Your task to perform on an android device: Go to Wikipedia Image 0: 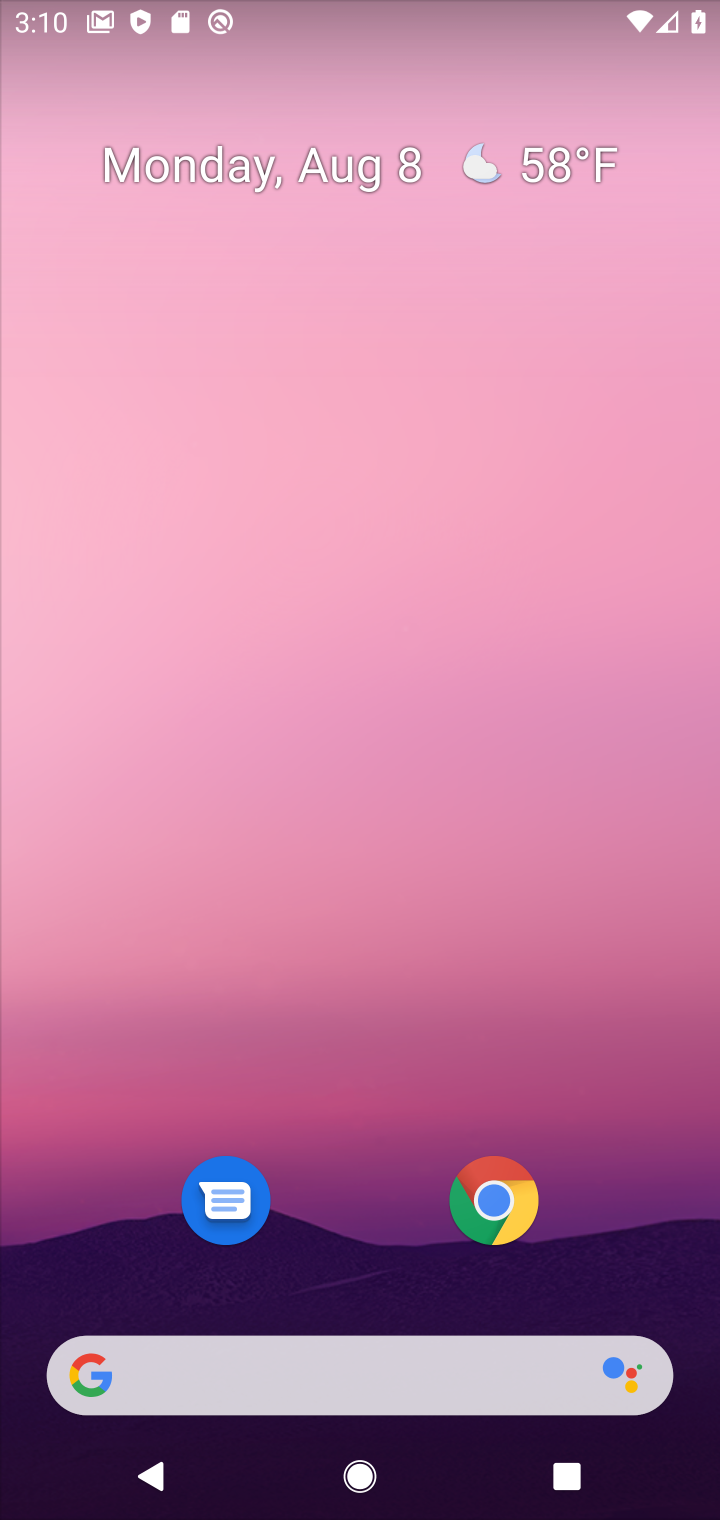
Step 0: click (504, 1203)
Your task to perform on an android device: Go to Wikipedia Image 1: 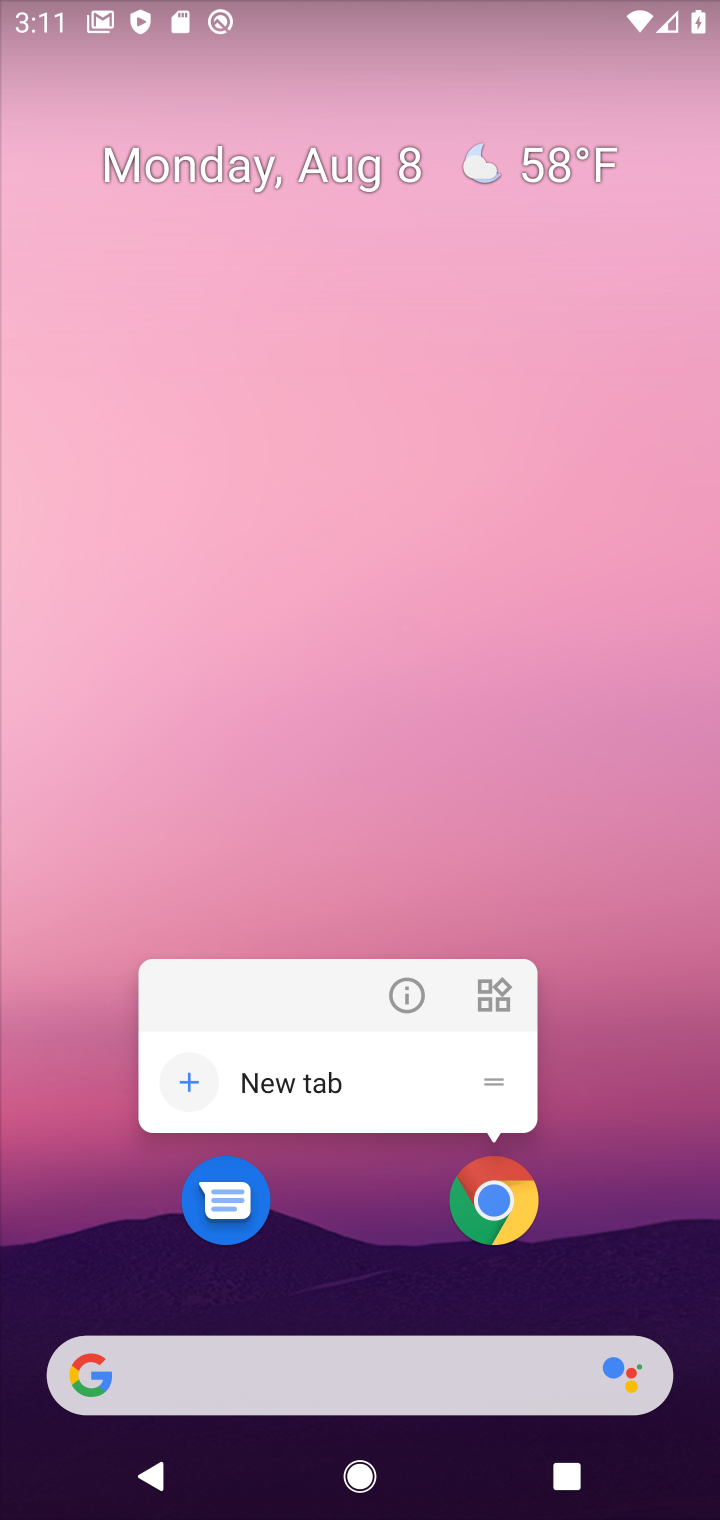
Step 1: click (490, 1183)
Your task to perform on an android device: Go to Wikipedia Image 2: 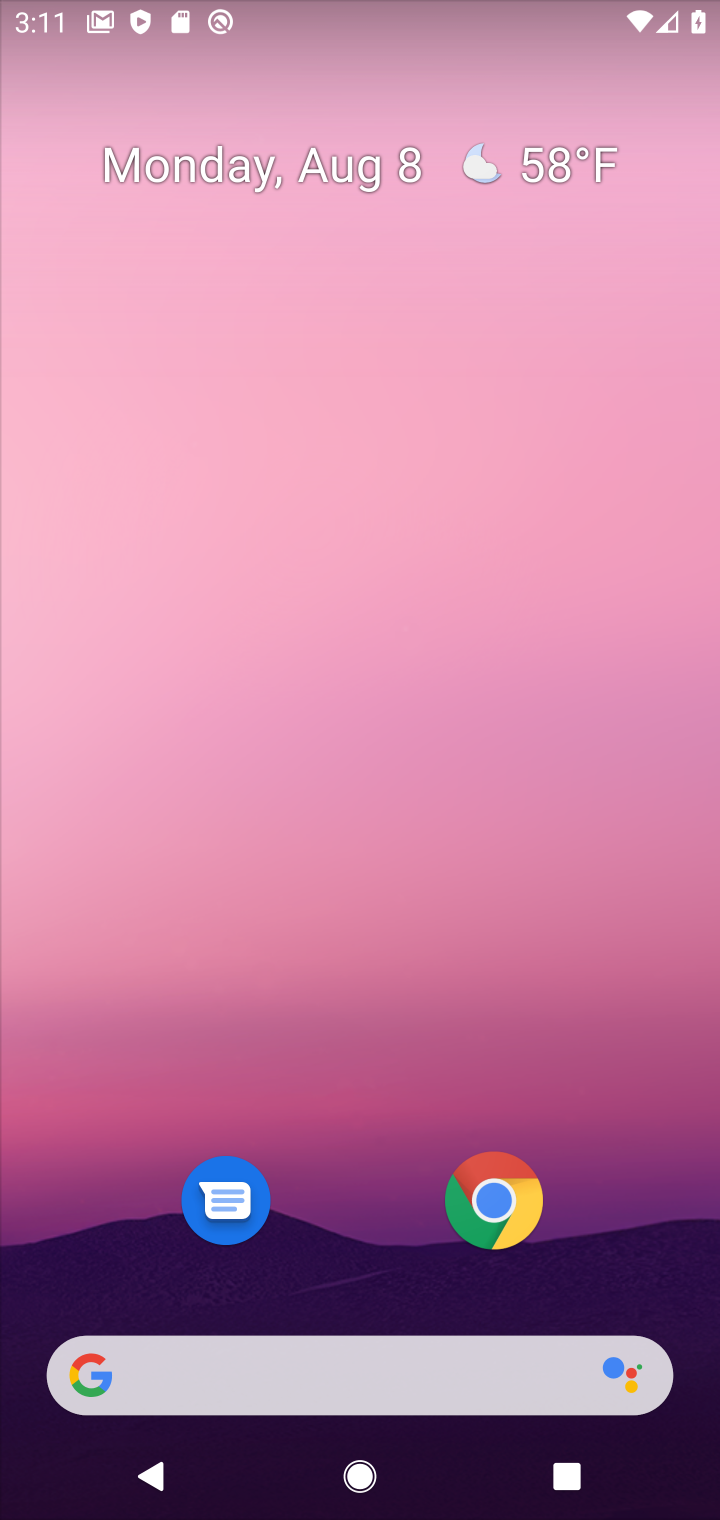
Step 2: click (490, 1183)
Your task to perform on an android device: Go to Wikipedia Image 3: 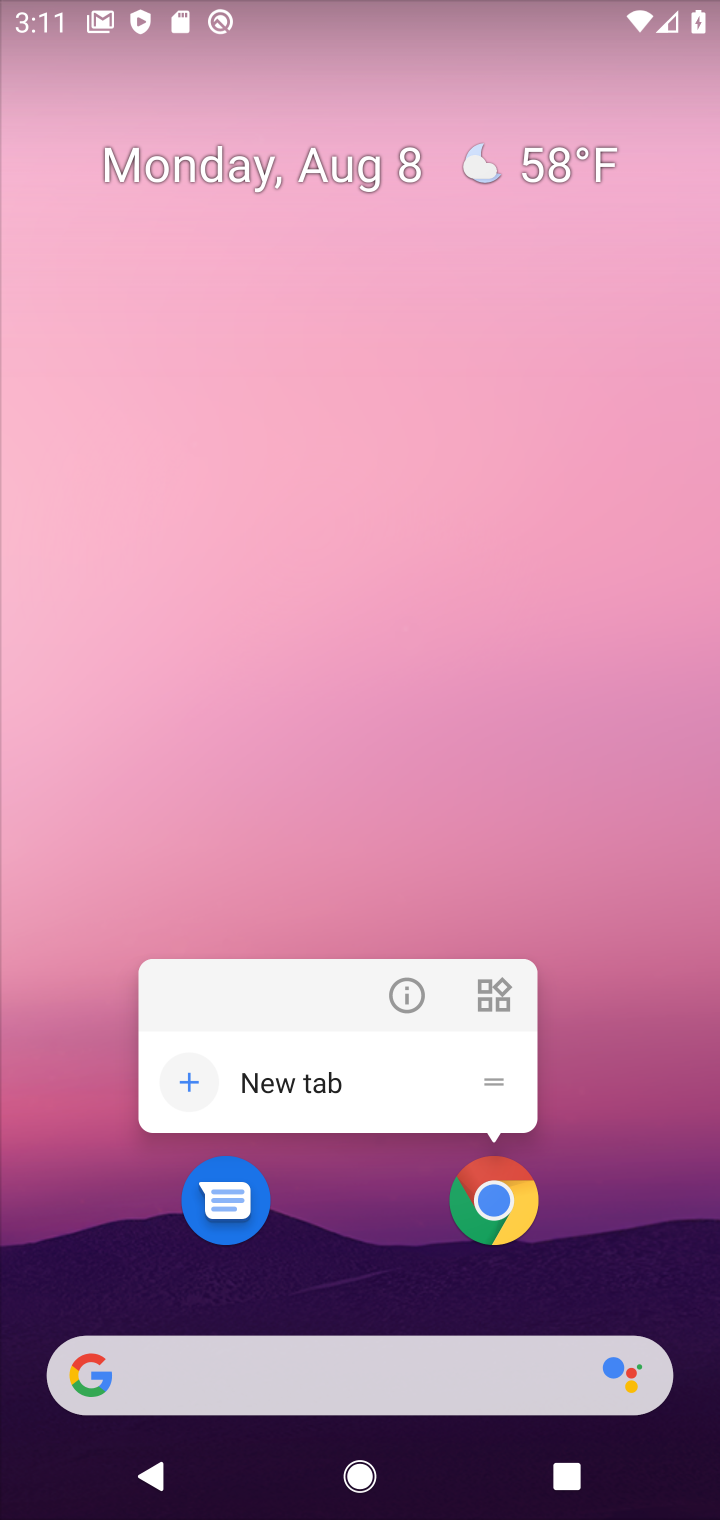
Step 3: click (652, 1167)
Your task to perform on an android device: Go to Wikipedia Image 4: 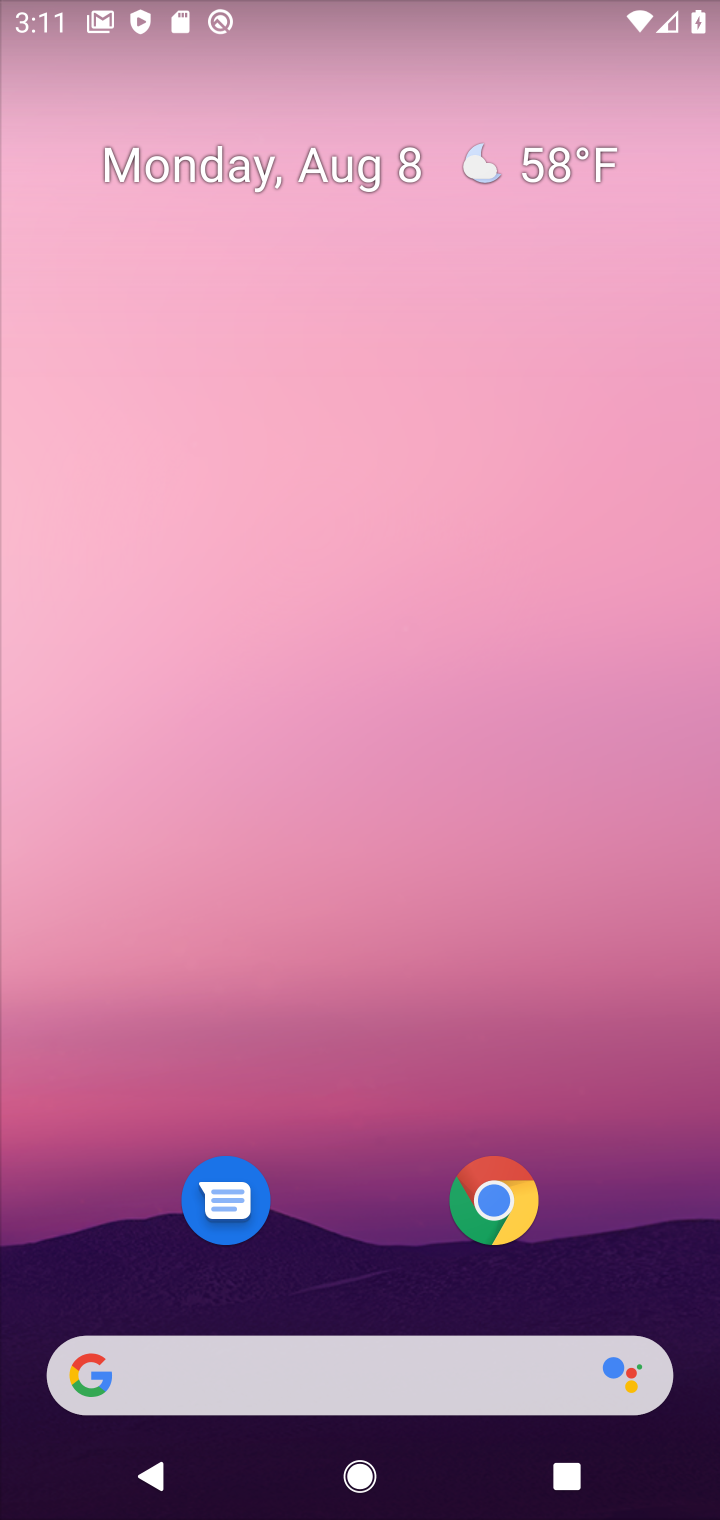
Step 4: click (500, 1212)
Your task to perform on an android device: Go to Wikipedia Image 5: 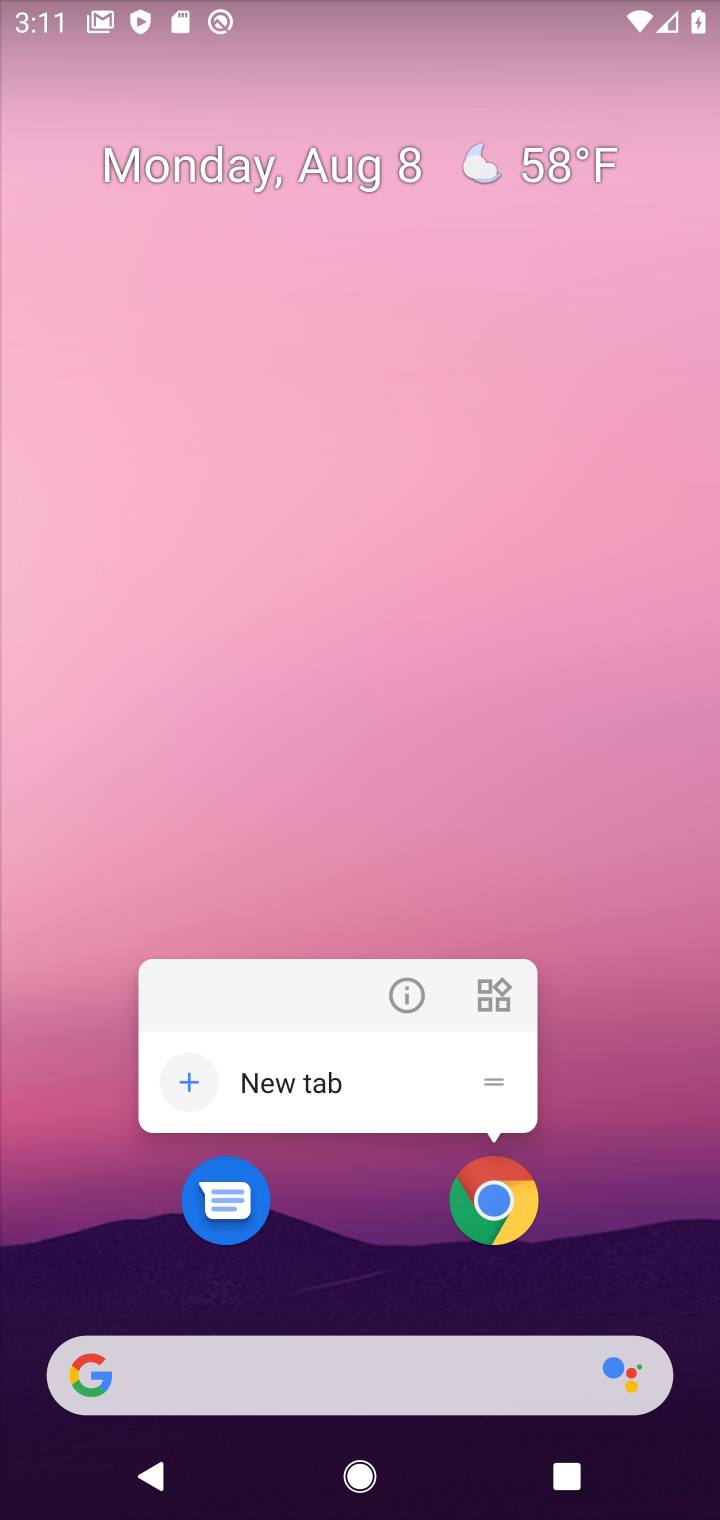
Step 5: click (500, 1212)
Your task to perform on an android device: Go to Wikipedia Image 6: 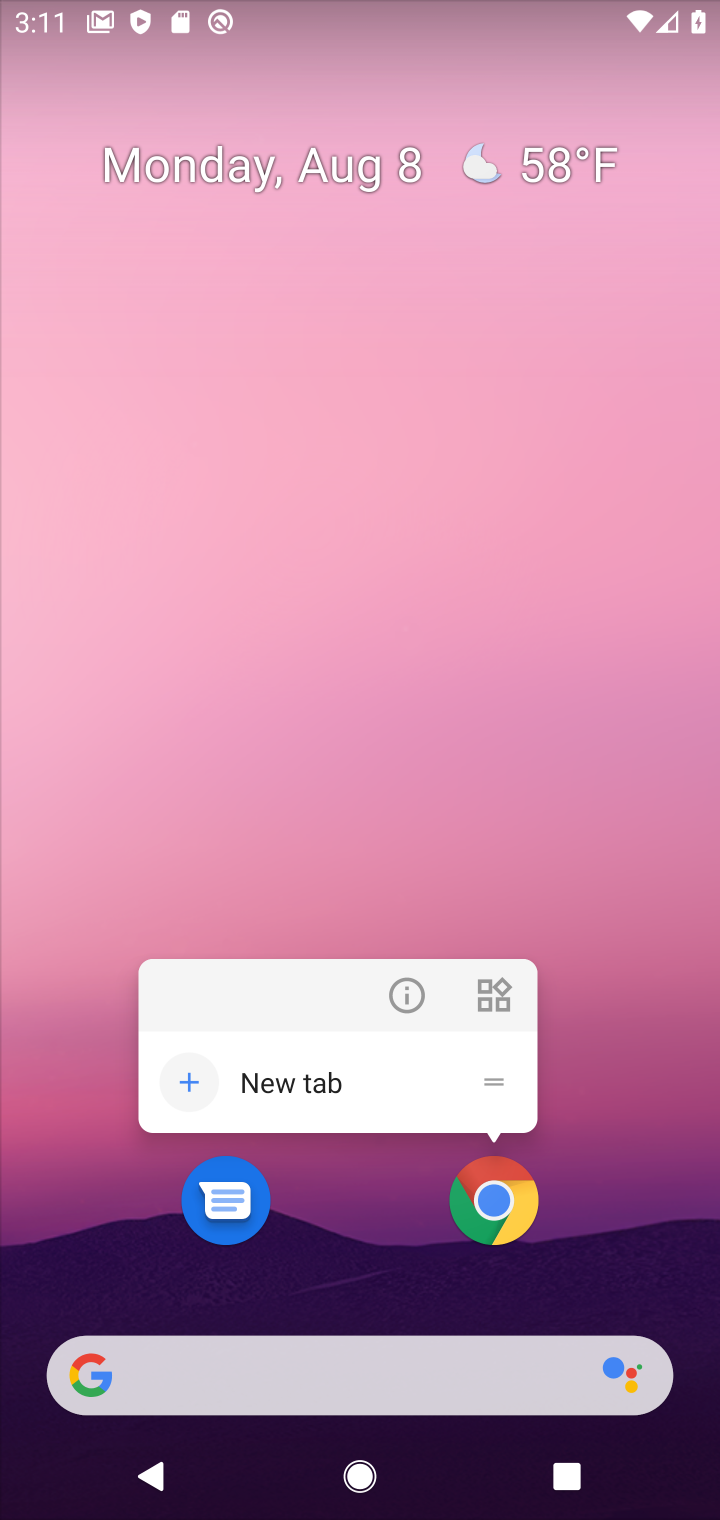
Step 6: click (241, 1195)
Your task to perform on an android device: Go to Wikipedia Image 7: 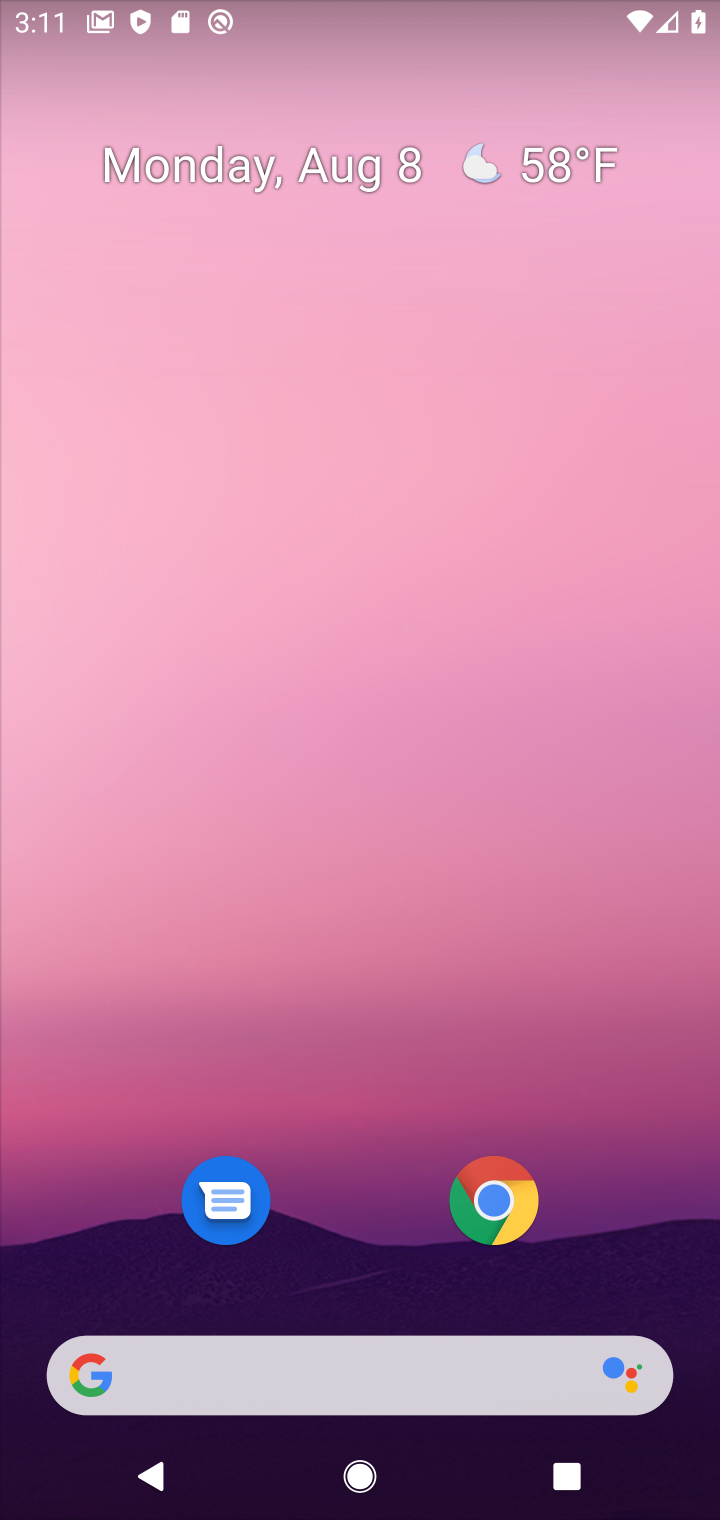
Step 7: click (212, 1194)
Your task to perform on an android device: Go to Wikipedia Image 8: 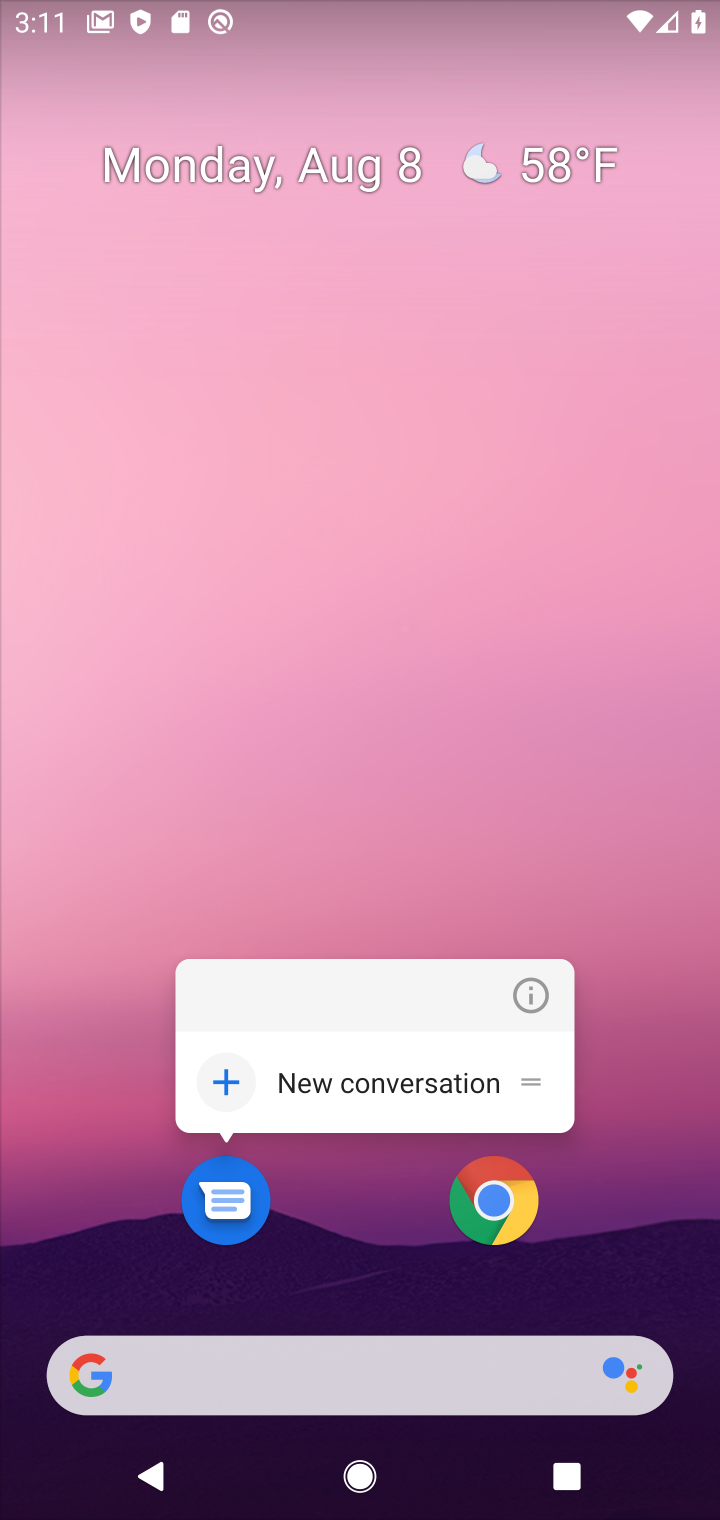
Step 8: drag from (416, 1277) to (369, 430)
Your task to perform on an android device: Go to Wikipedia Image 9: 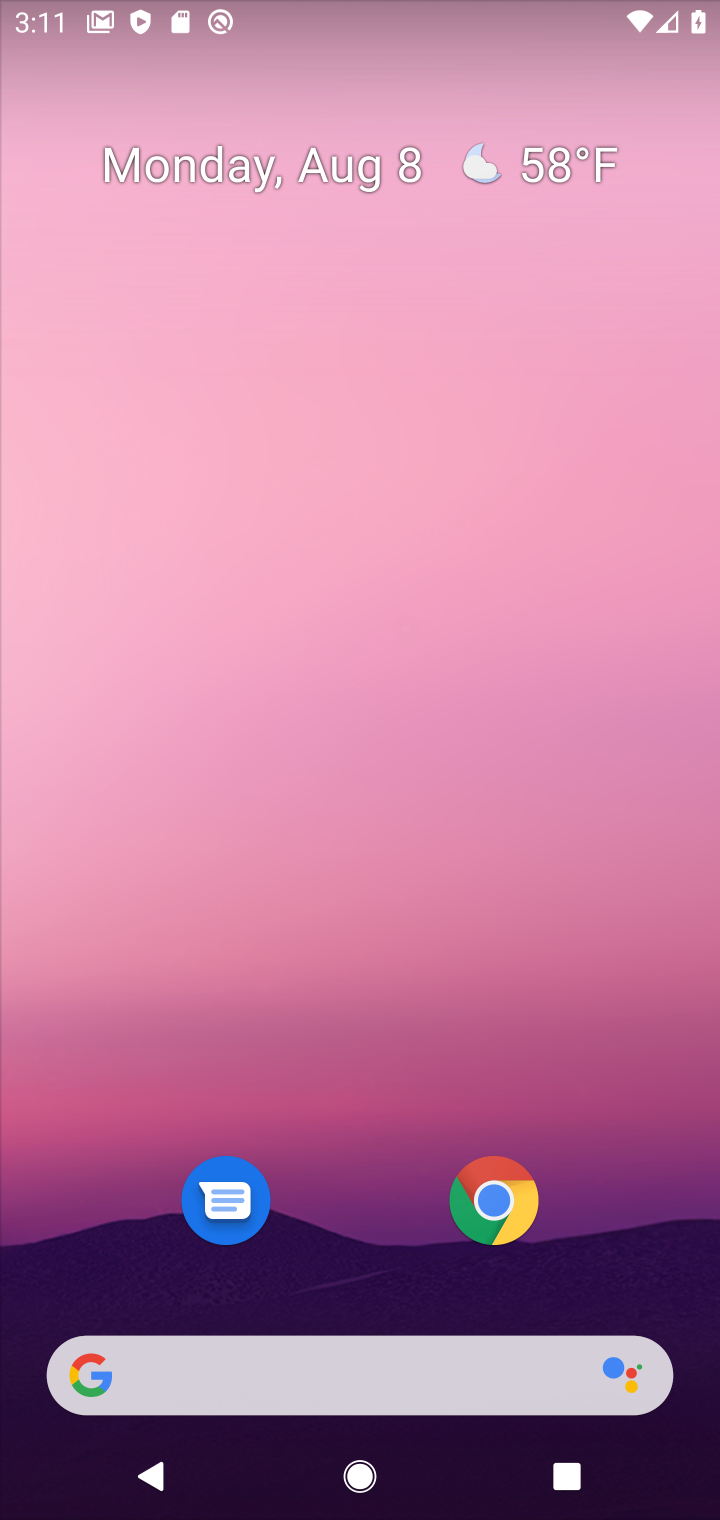
Step 9: drag from (373, 1292) to (437, 490)
Your task to perform on an android device: Go to Wikipedia Image 10: 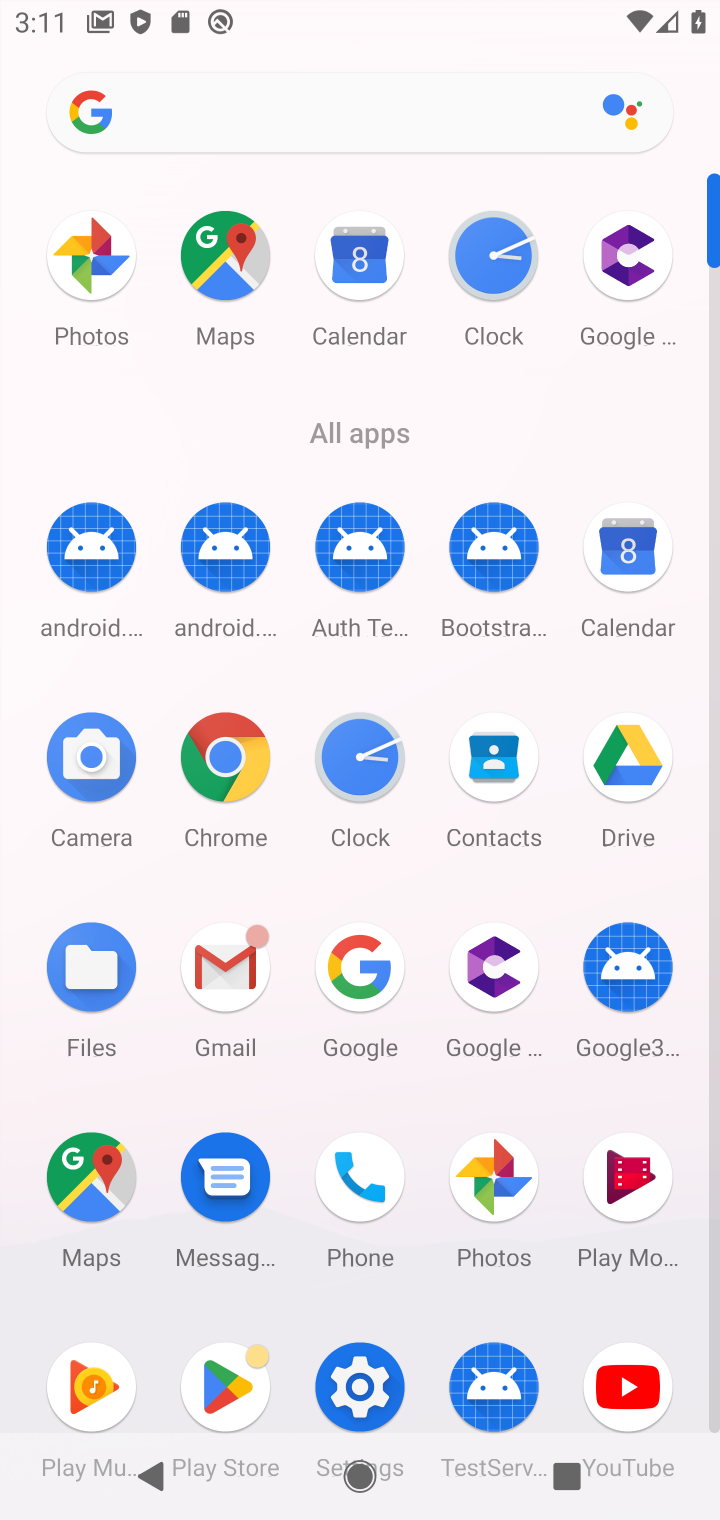
Step 10: click (252, 739)
Your task to perform on an android device: Go to Wikipedia Image 11: 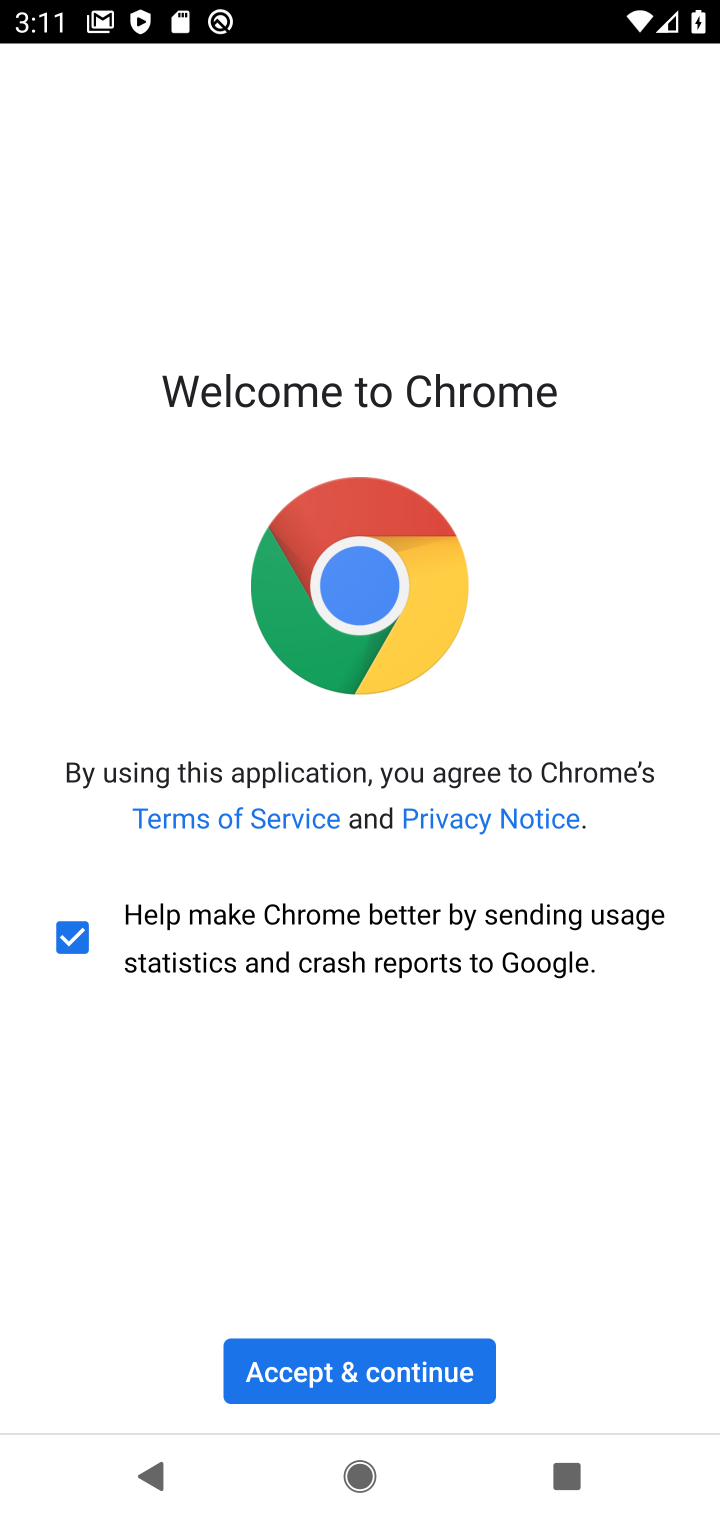
Step 11: click (378, 1359)
Your task to perform on an android device: Go to Wikipedia Image 12: 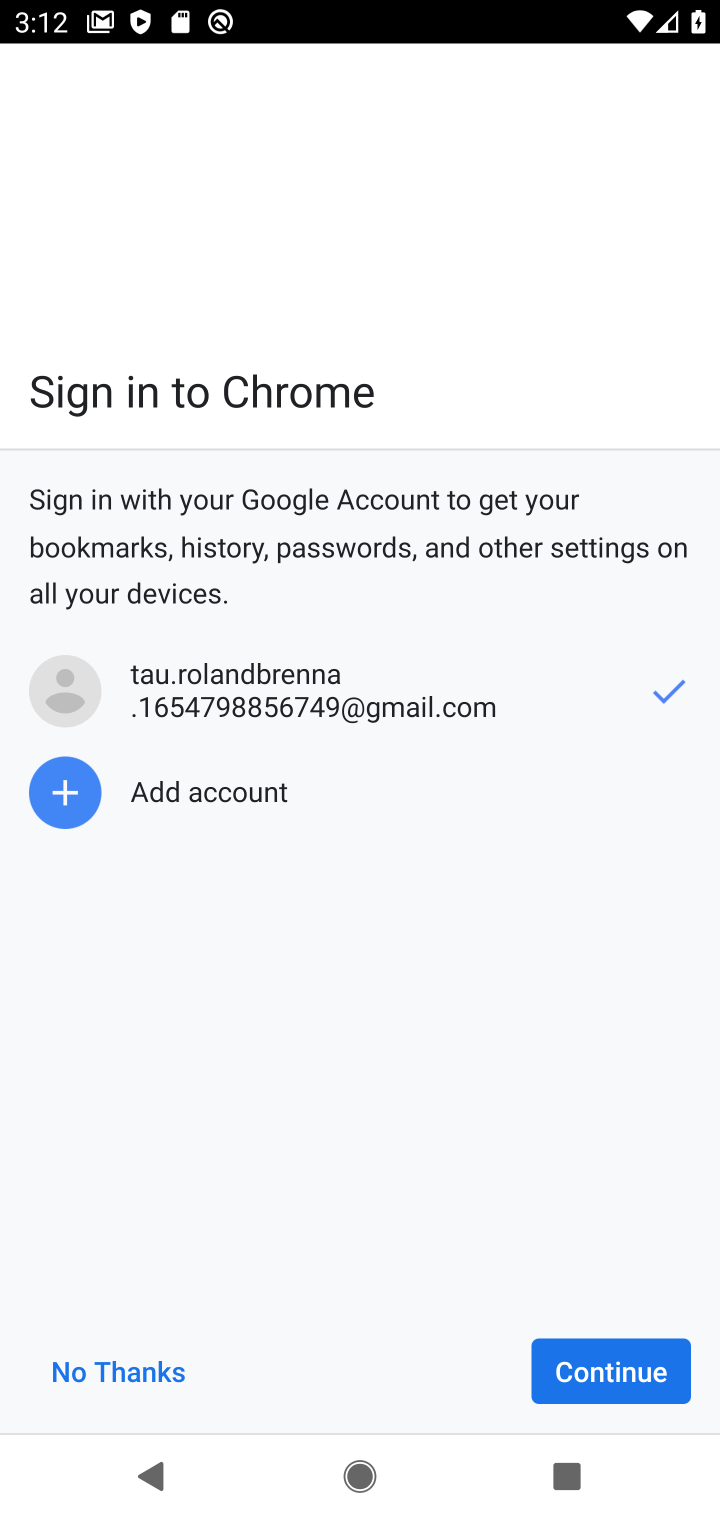
Step 12: click (611, 1391)
Your task to perform on an android device: Go to Wikipedia Image 13: 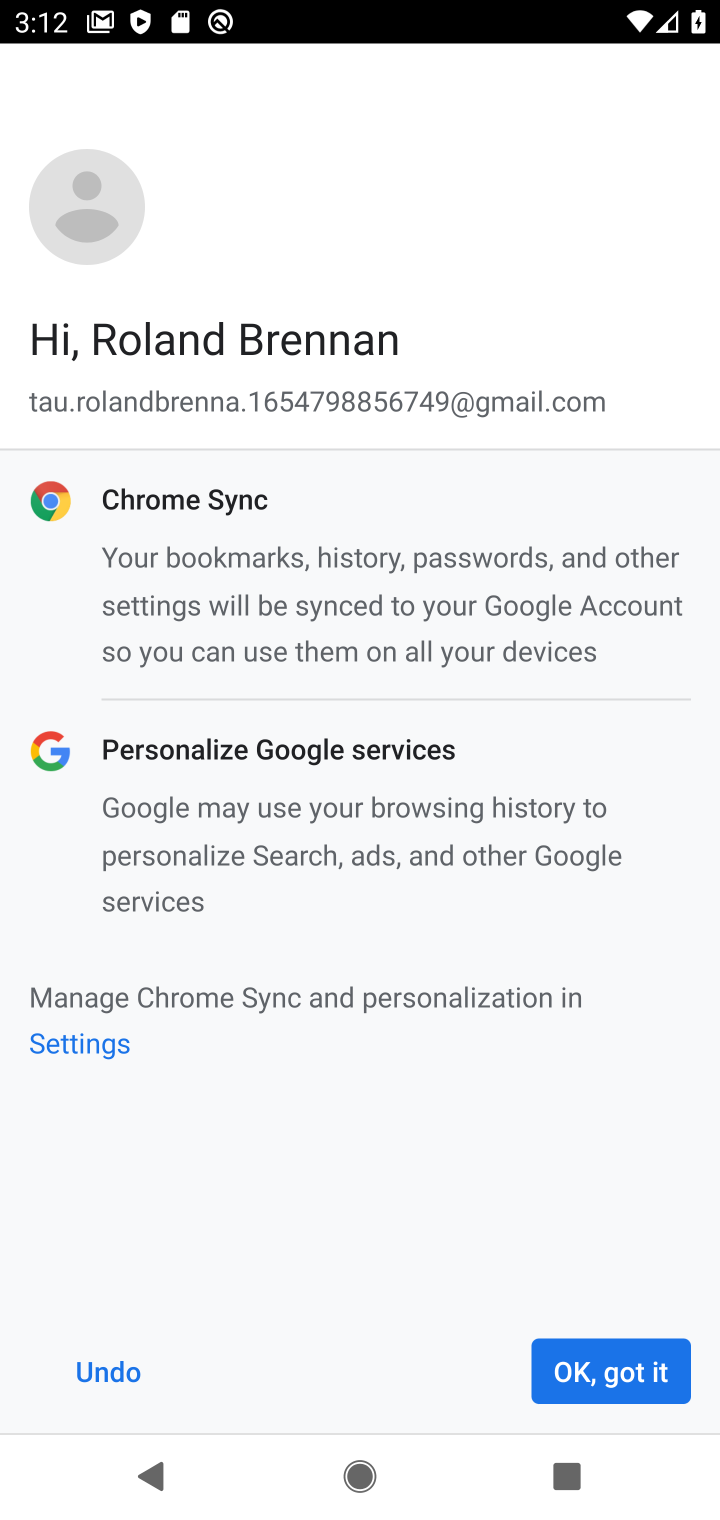
Step 13: click (605, 1391)
Your task to perform on an android device: Go to Wikipedia Image 14: 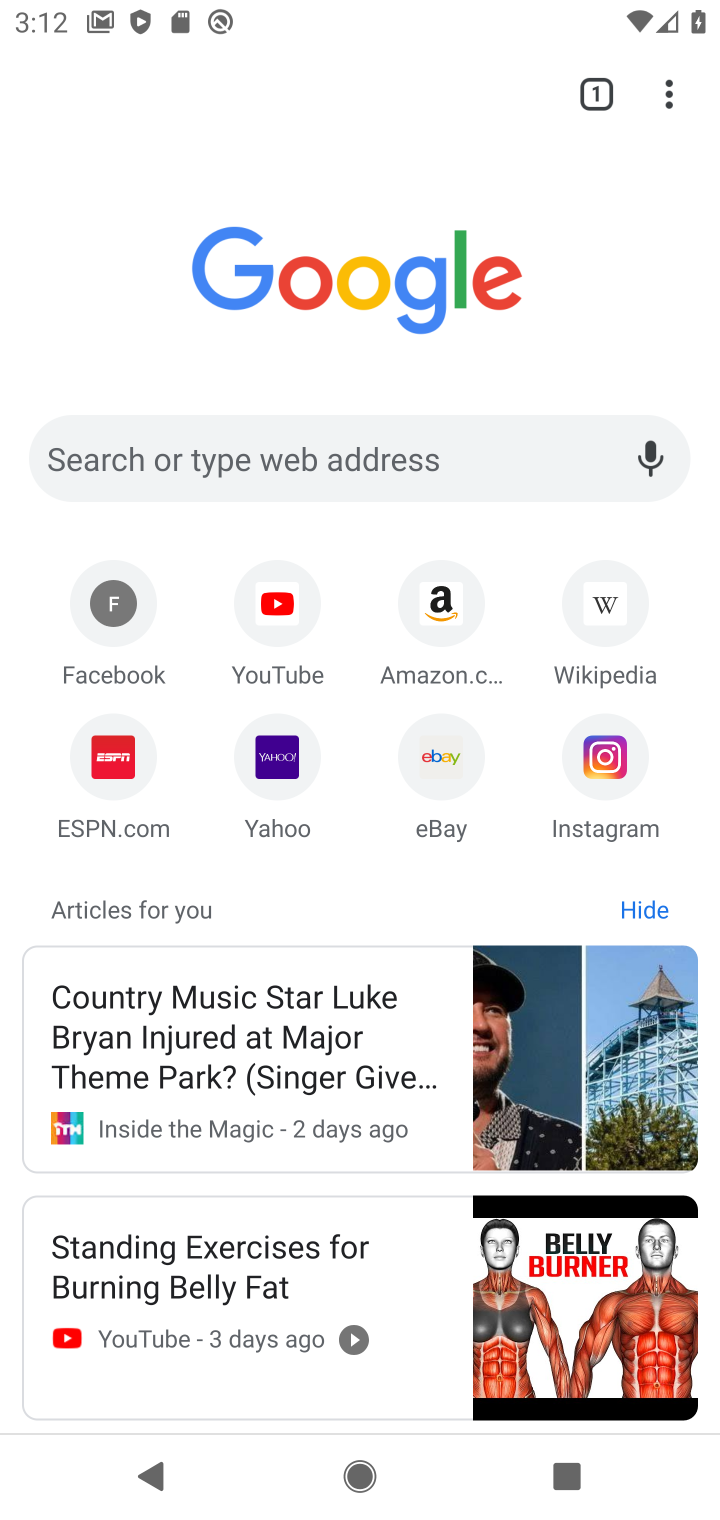
Step 14: click (607, 606)
Your task to perform on an android device: Go to Wikipedia Image 15: 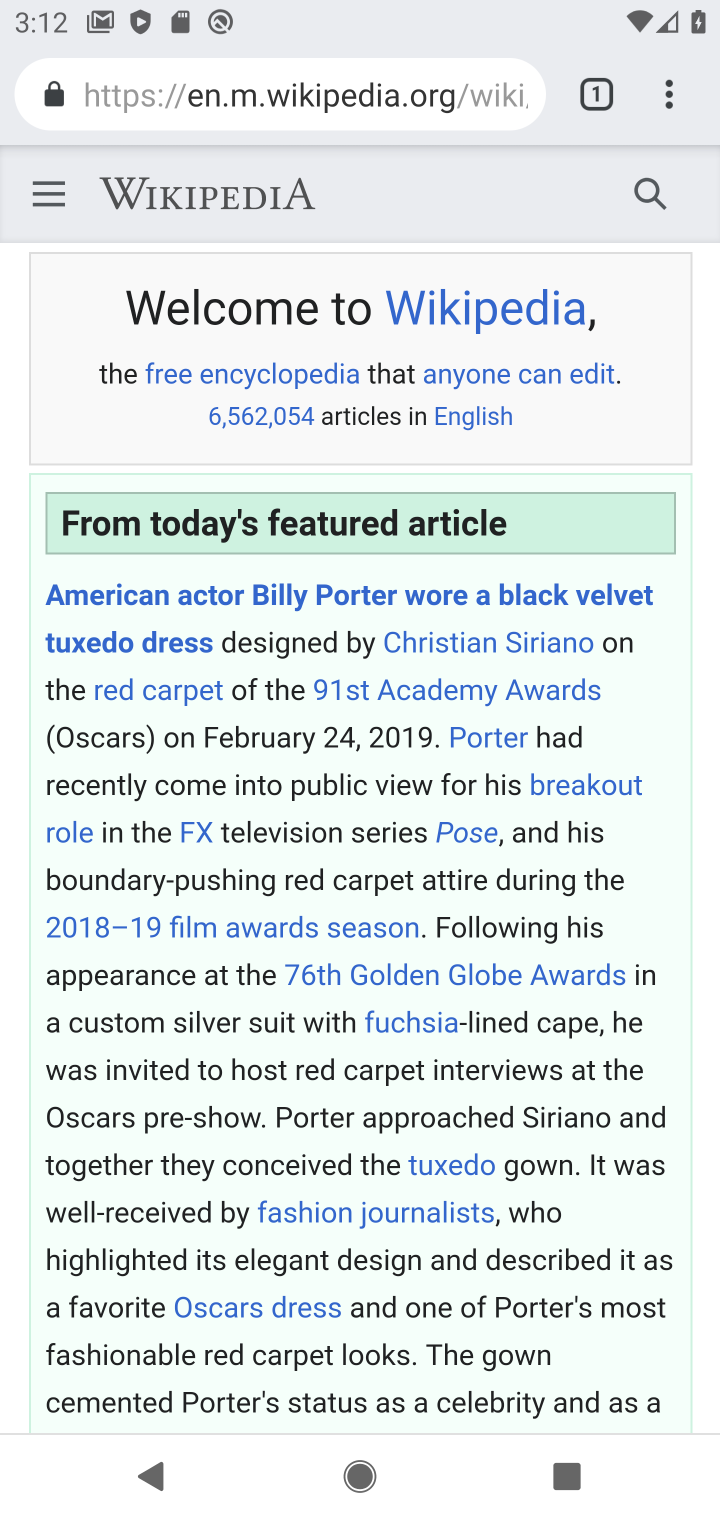
Step 15: drag from (570, 959) to (534, 586)
Your task to perform on an android device: Go to Wikipedia Image 16: 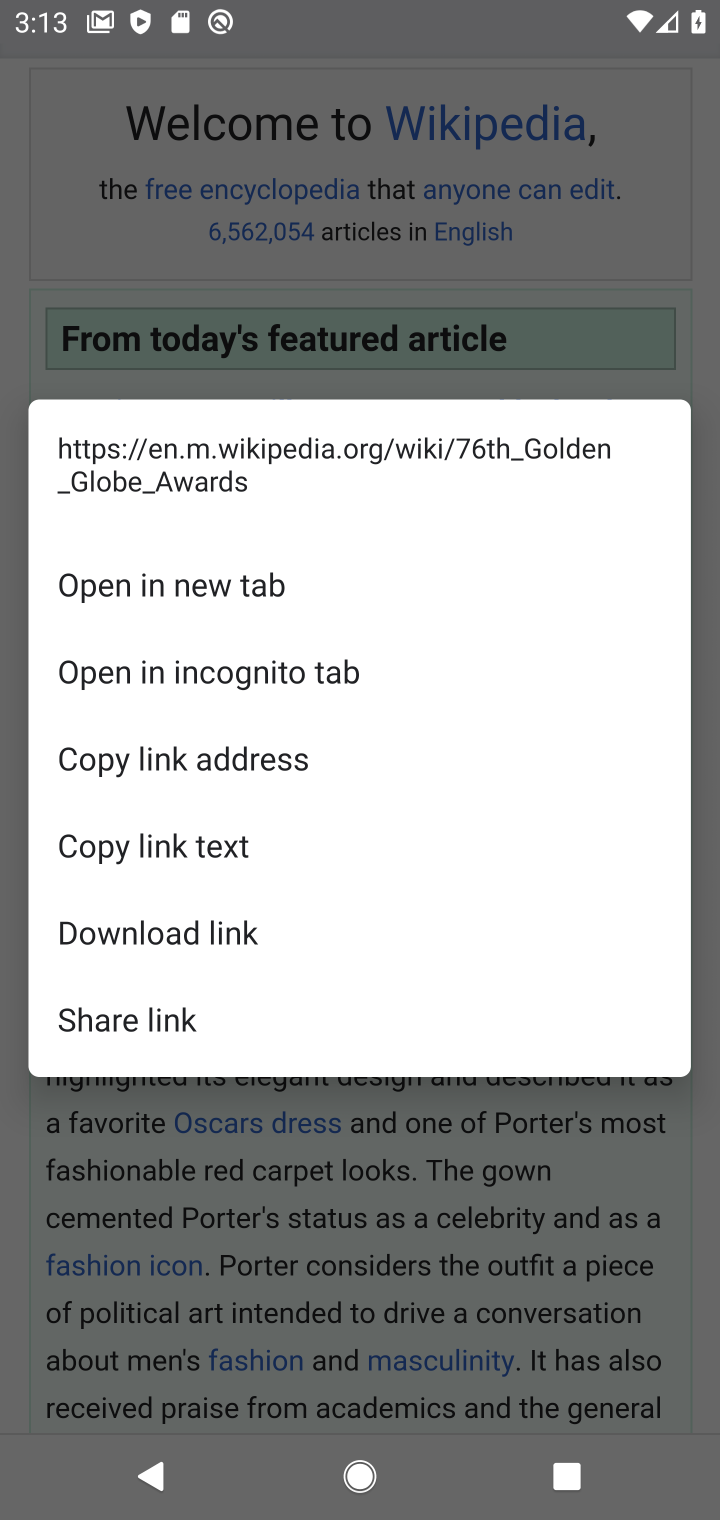
Step 16: click (485, 1190)
Your task to perform on an android device: Go to Wikipedia Image 17: 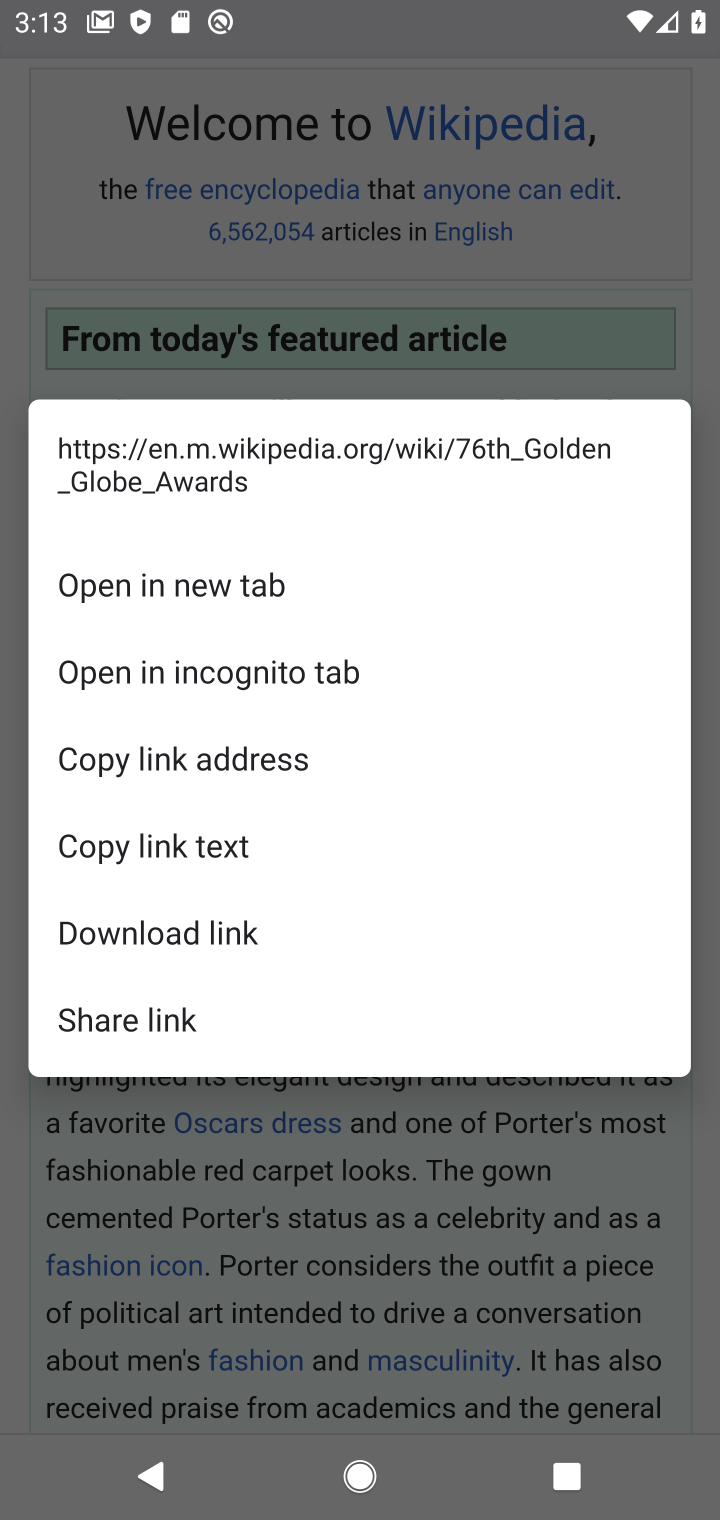
Step 17: task complete